Your task to perform on an android device: Open maps Image 0: 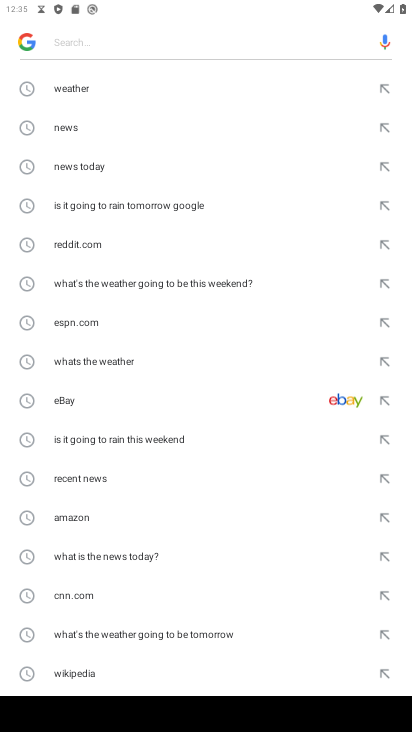
Step 0: press home button
Your task to perform on an android device: Open maps Image 1: 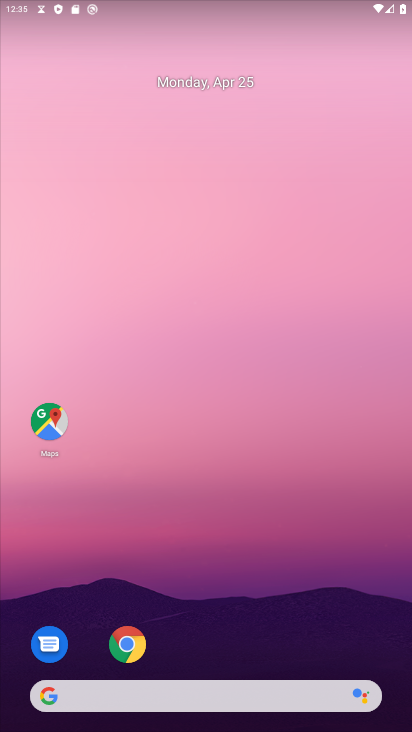
Step 1: click (42, 422)
Your task to perform on an android device: Open maps Image 2: 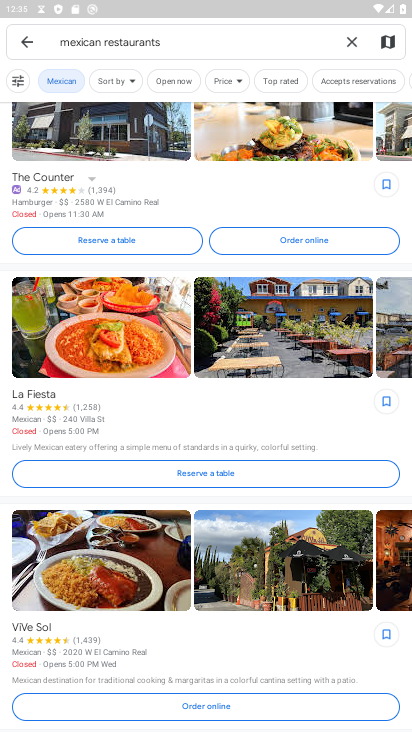
Step 2: task complete